Your task to perform on an android device: turn off airplane mode Image 0: 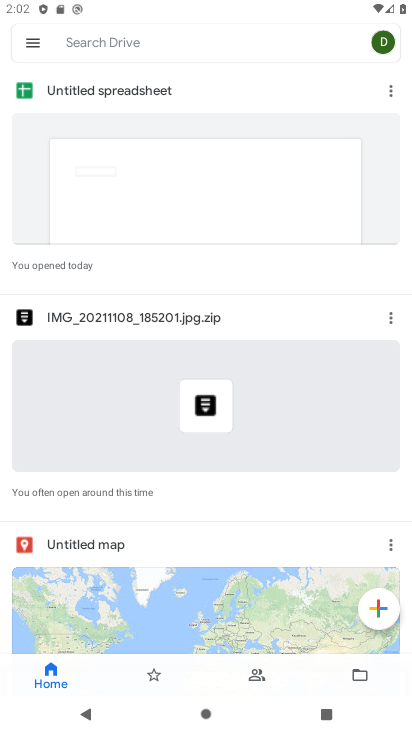
Step 0: press home button
Your task to perform on an android device: turn off airplane mode Image 1: 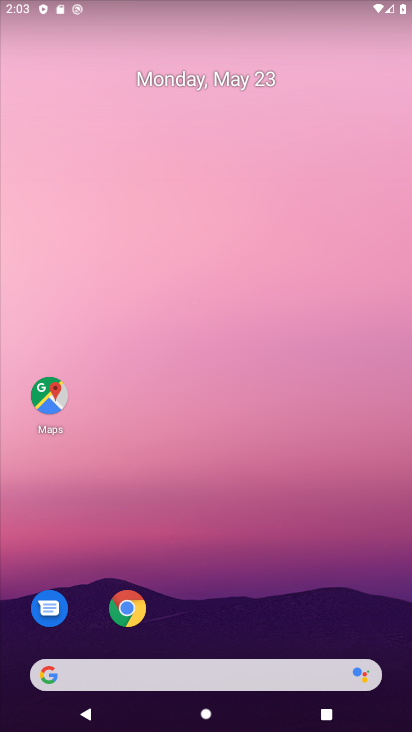
Step 1: drag from (202, 649) to (91, 23)
Your task to perform on an android device: turn off airplane mode Image 2: 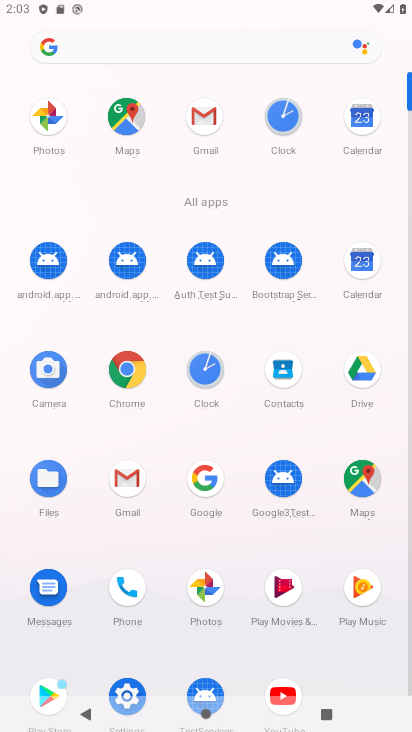
Step 2: click (109, 679)
Your task to perform on an android device: turn off airplane mode Image 3: 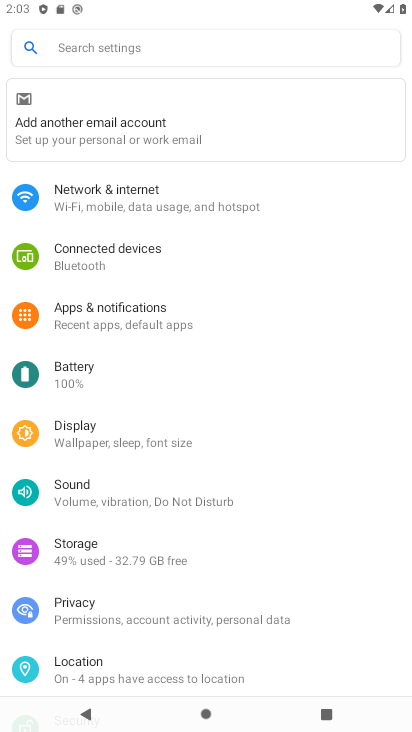
Step 3: click (109, 188)
Your task to perform on an android device: turn off airplane mode Image 4: 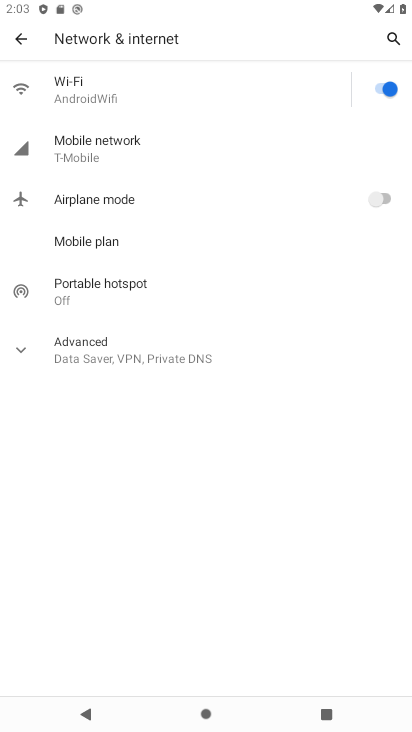
Step 4: task complete